Your task to perform on an android device: Open the stopwatch Image 0: 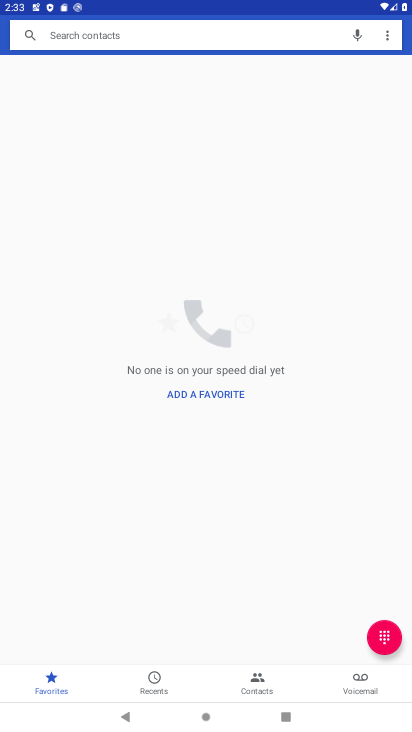
Step 0: press home button
Your task to perform on an android device: Open the stopwatch Image 1: 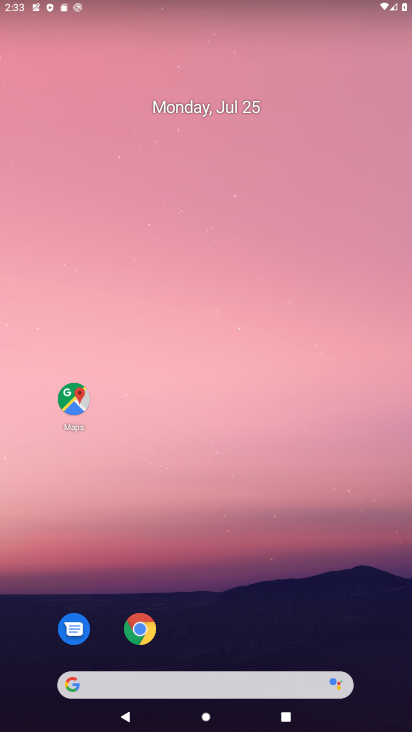
Step 1: drag from (20, 681) to (212, 211)
Your task to perform on an android device: Open the stopwatch Image 2: 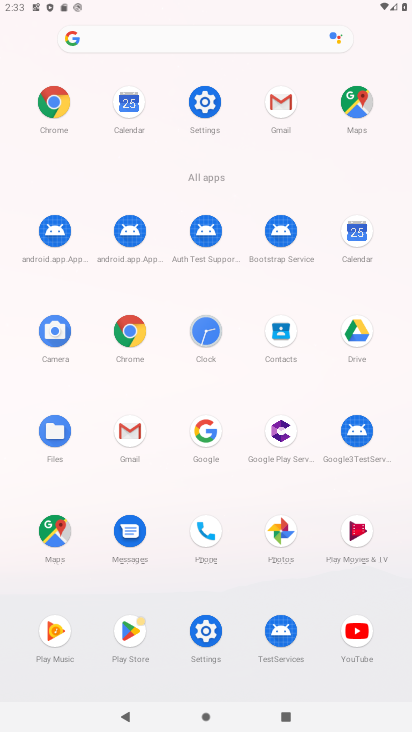
Step 2: click (192, 333)
Your task to perform on an android device: Open the stopwatch Image 3: 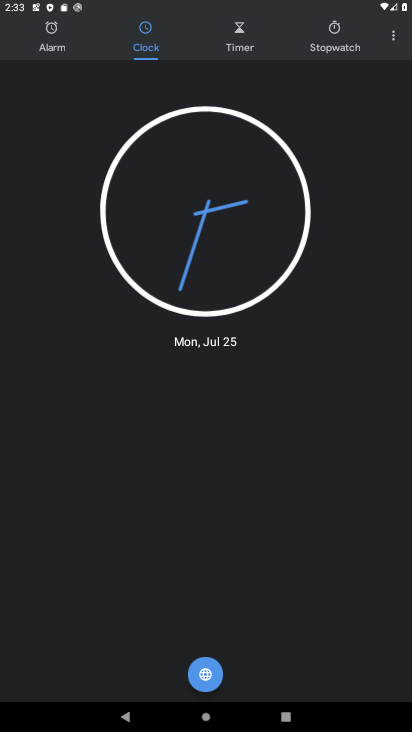
Step 3: click (187, 202)
Your task to perform on an android device: Open the stopwatch Image 4: 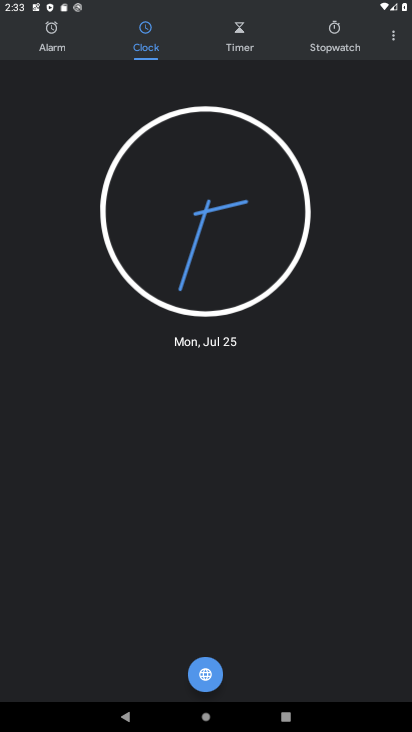
Step 4: click (208, 261)
Your task to perform on an android device: Open the stopwatch Image 5: 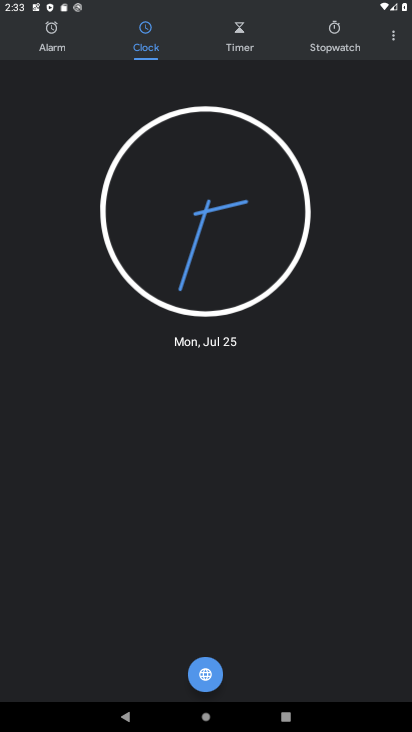
Step 5: click (329, 53)
Your task to perform on an android device: Open the stopwatch Image 6: 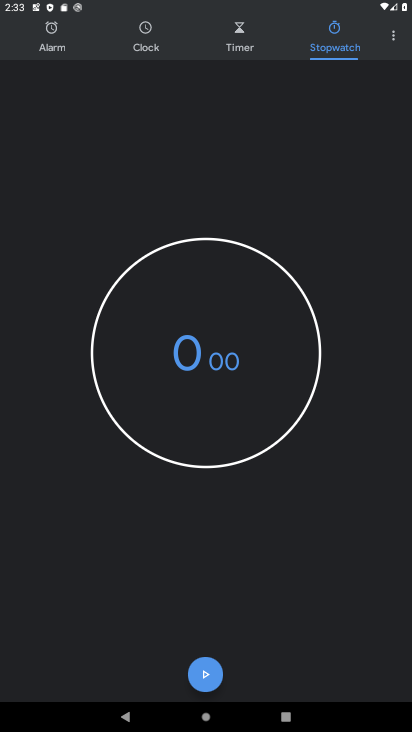
Step 6: click (176, 405)
Your task to perform on an android device: Open the stopwatch Image 7: 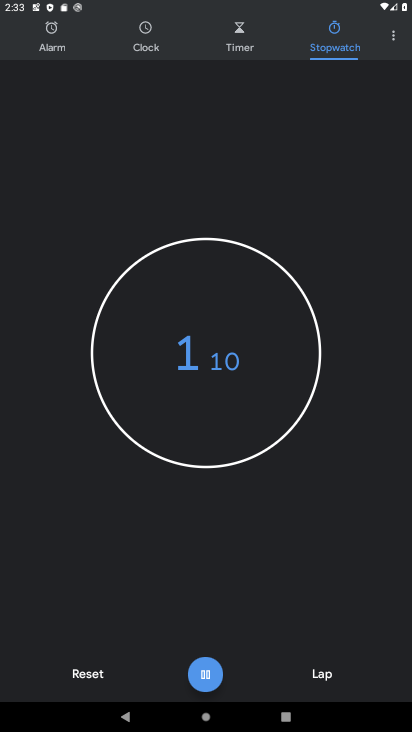
Step 7: click (203, 369)
Your task to perform on an android device: Open the stopwatch Image 8: 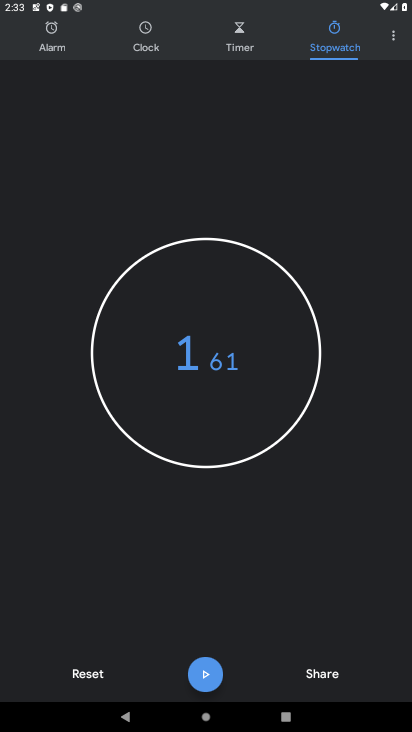
Step 8: task complete